Your task to perform on an android device: Show me popular games on the Play Store Image 0: 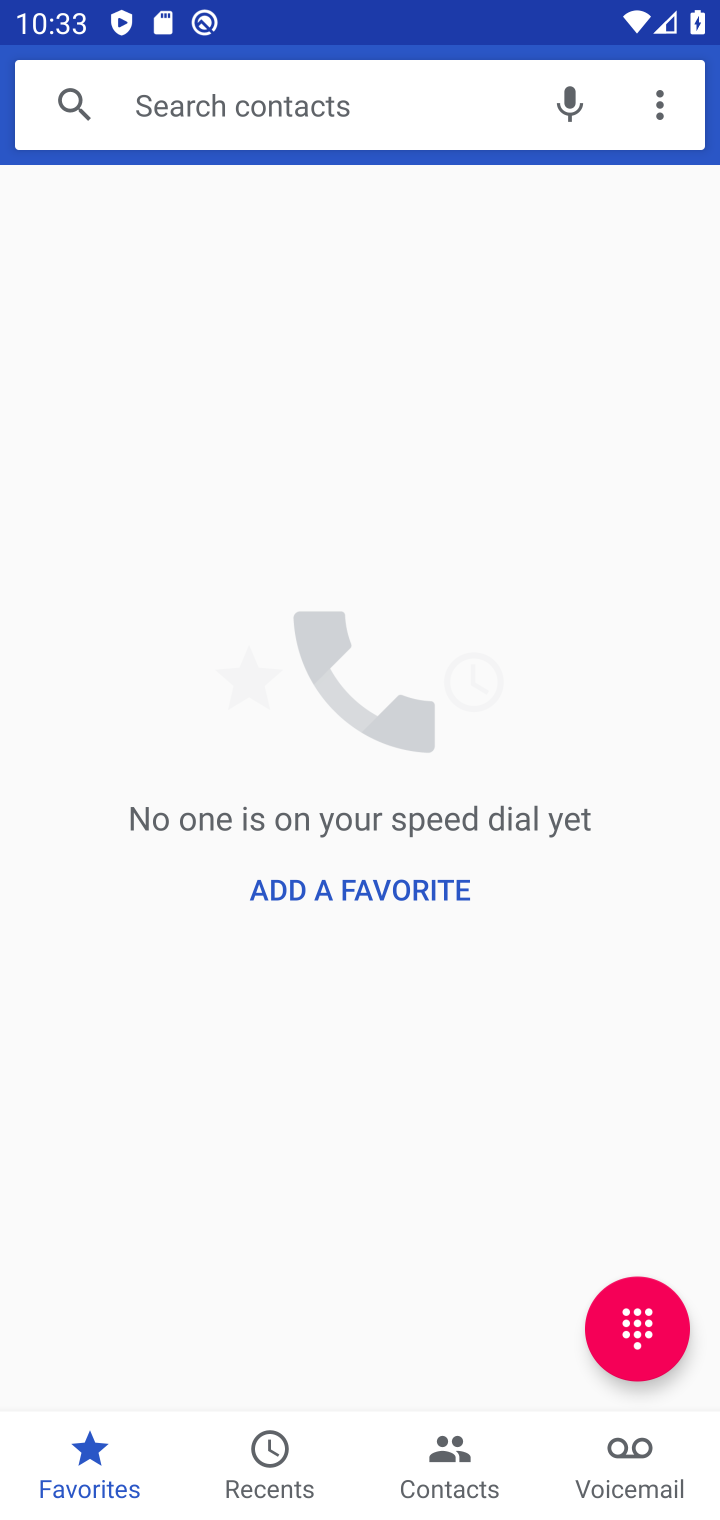
Step 0: press home button
Your task to perform on an android device: Show me popular games on the Play Store Image 1: 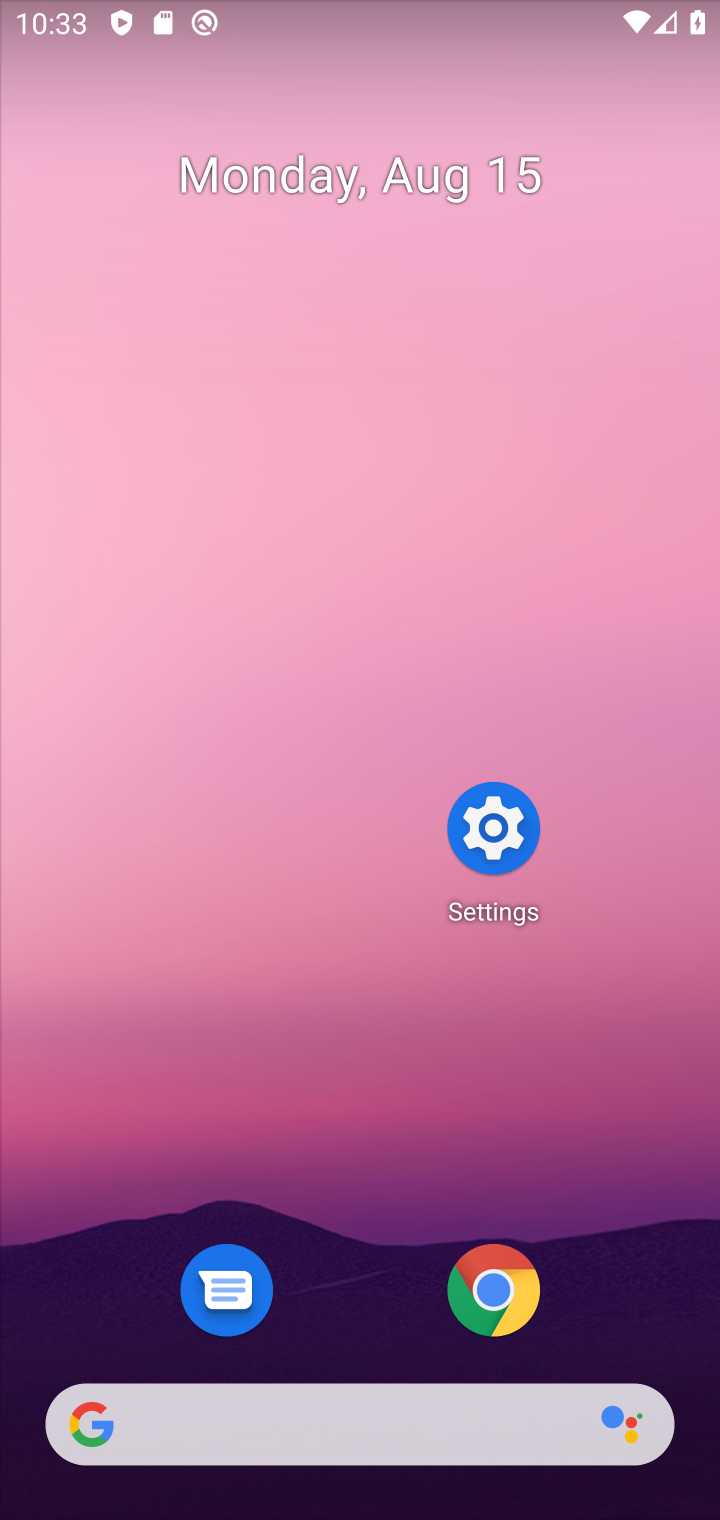
Step 1: drag from (432, 1047) to (498, 148)
Your task to perform on an android device: Show me popular games on the Play Store Image 2: 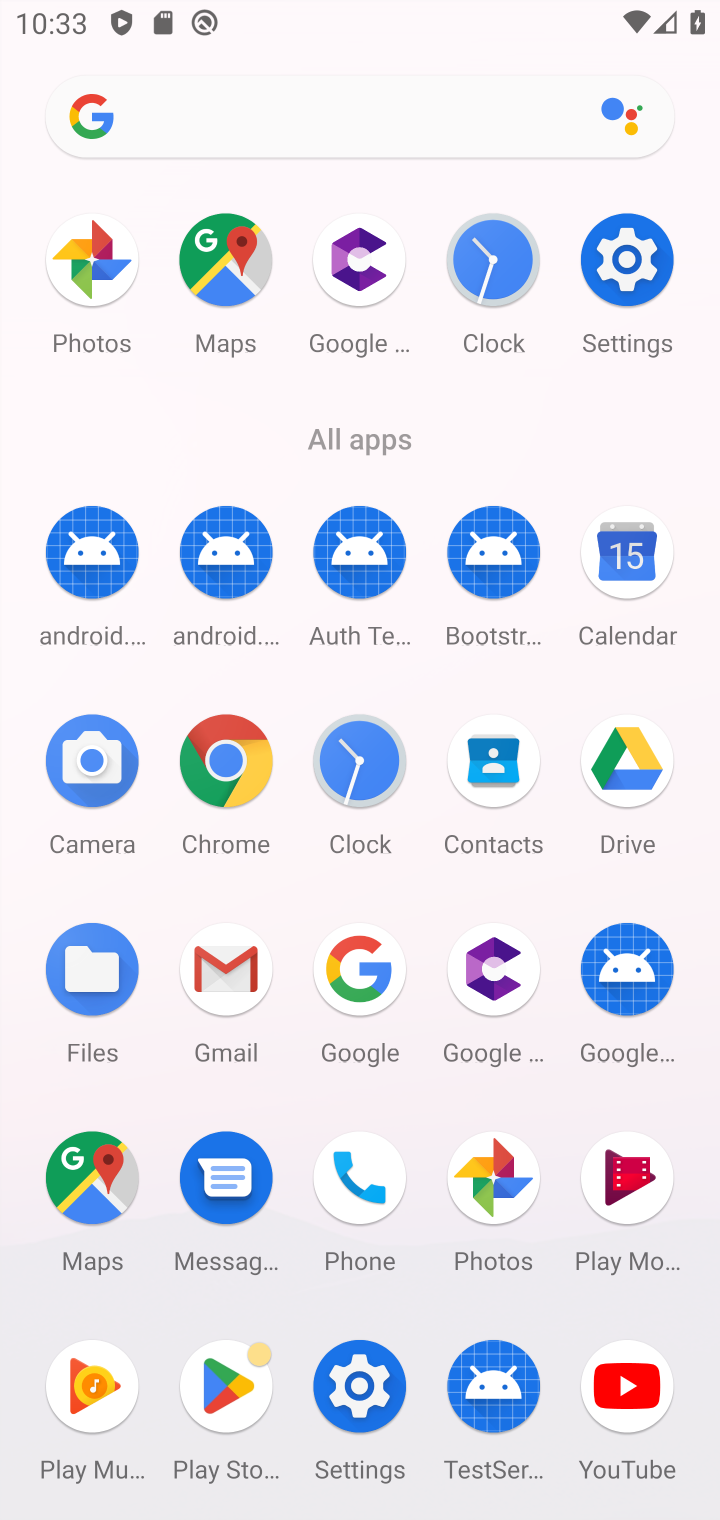
Step 2: click (229, 1383)
Your task to perform on an android device: Show me popular games on the Play Store Image 3: 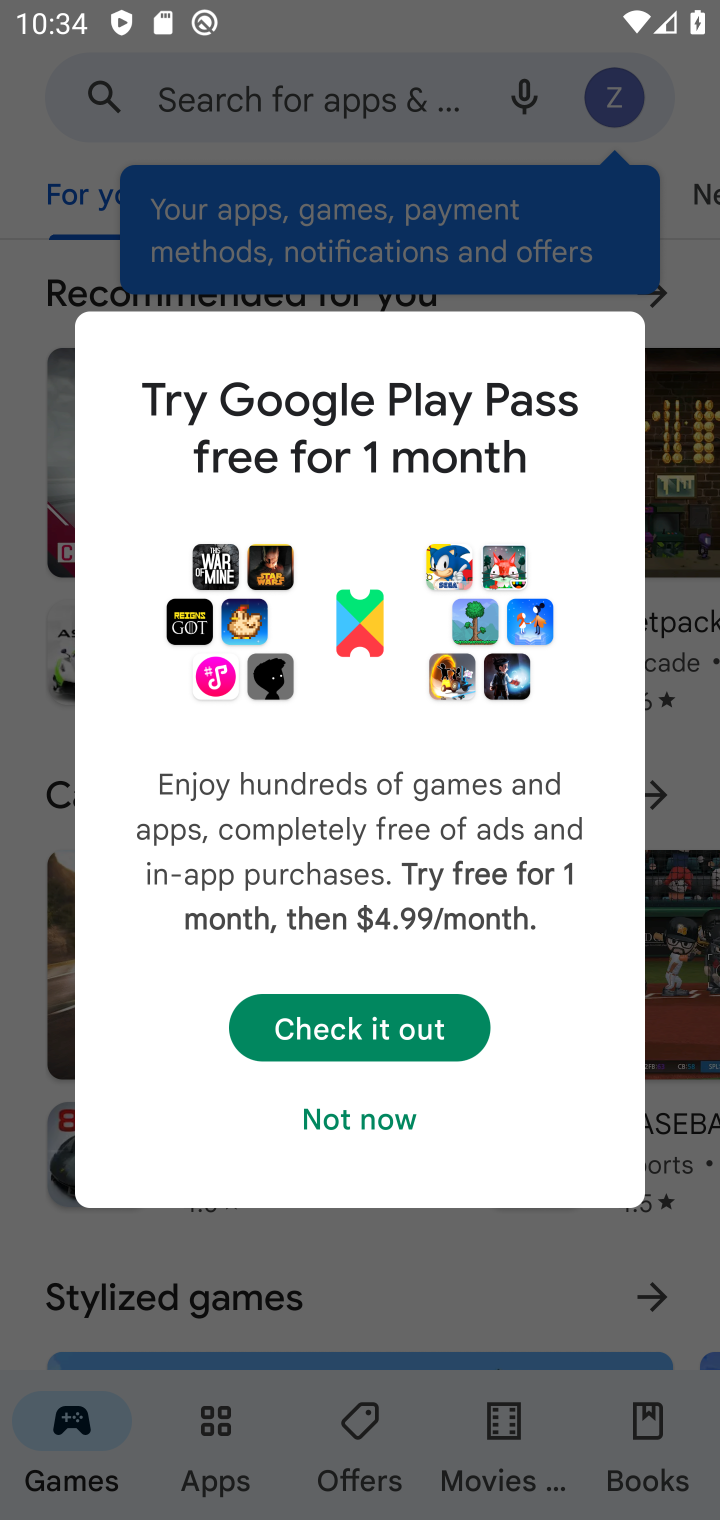
Step 3: click (366, 1118)
Your task to perform on an android device: Show me popular games on the Play Store Image 4: 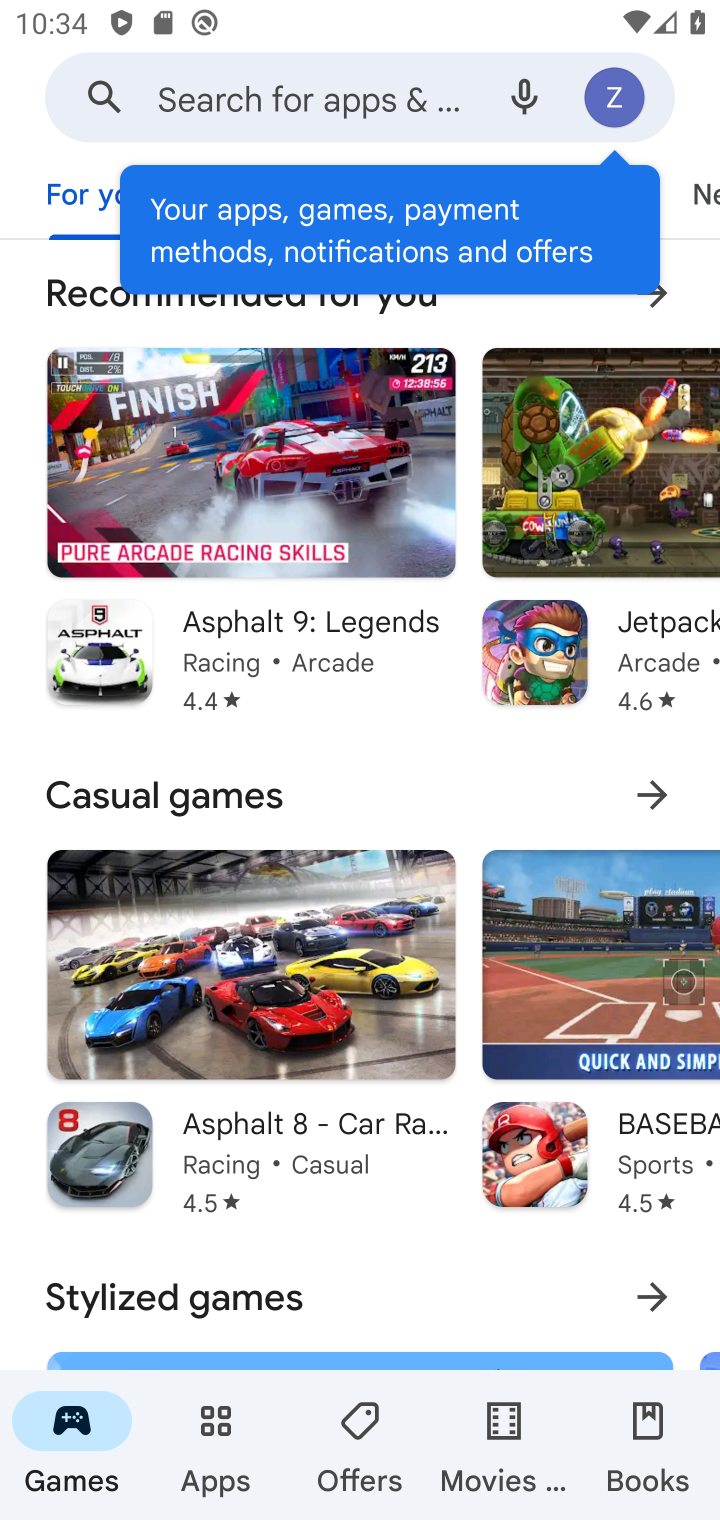
Step 4: task complete